Your task to perform on an android device: delete browsing data in the chrome app Image 0: 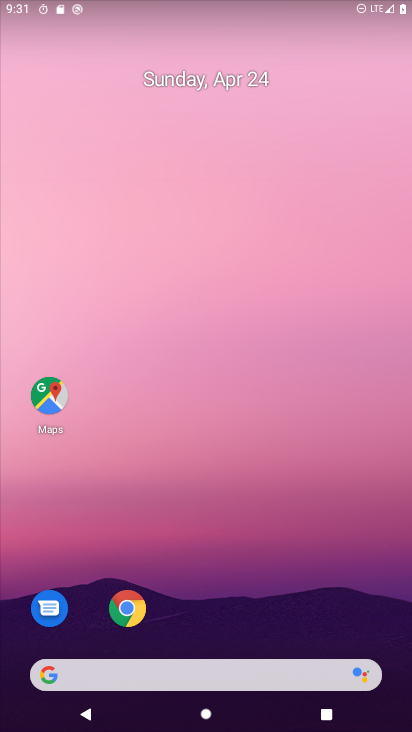
Step 0: click (134, 607)
Your task to perform on an android device: delete browsing data in the chrome app Image 1: 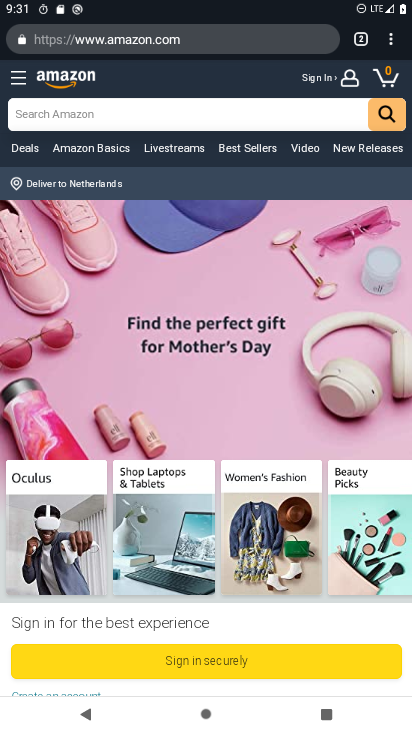
Step 1: click (390, 46)
Your task to perform on an android device: delete browsing data in the chrome app Image 2: 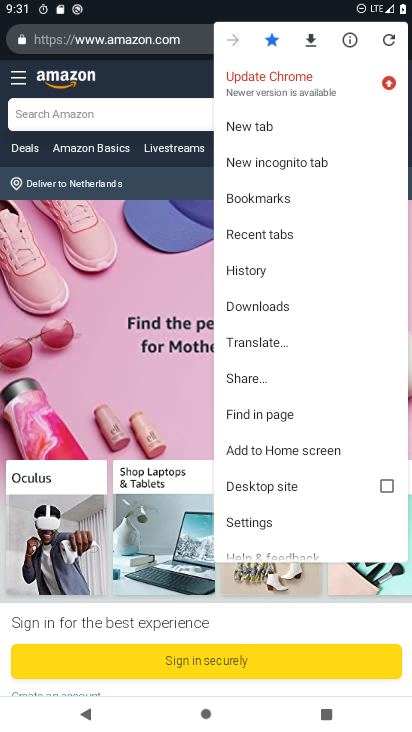
Step 2: click (277, 268)
Your task to perform on an android device: delete browsing data in the chrome app Image 3: 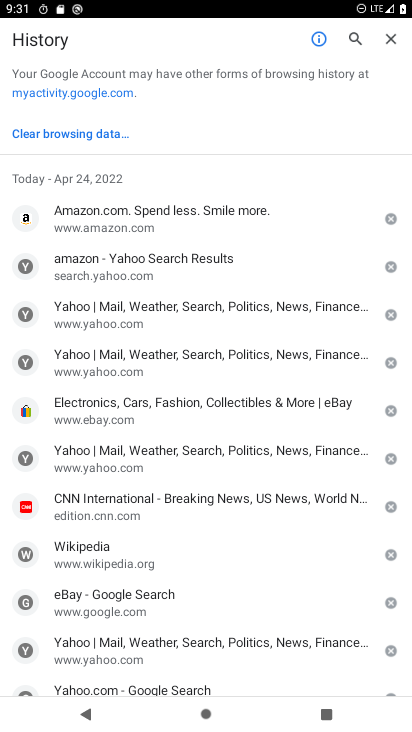
Step 3: click (106, 124)
Your task to perform on an android device: delete browsing data in the chrome app Image 4: 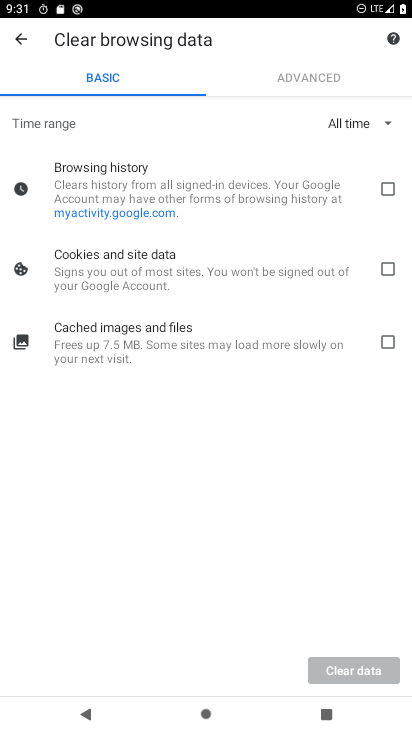
Step 4: click (388, 188)
Your task to perform on an android device: delete browsing data in the chrome app Image 5: 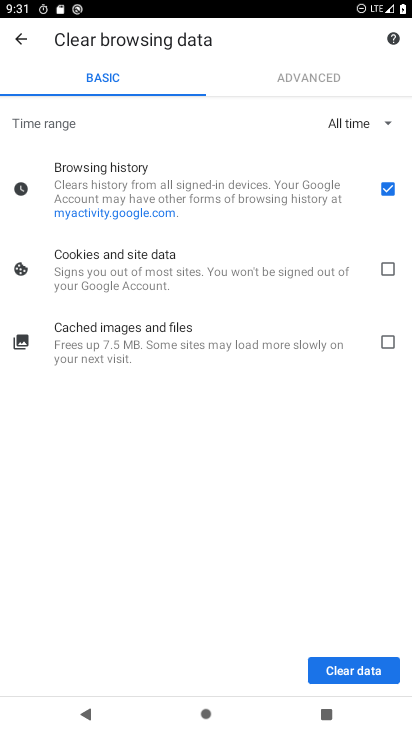
Step 5: click (381, 263)
Your task to perform on an android device: delete browsing data in the chrome app Image 6: 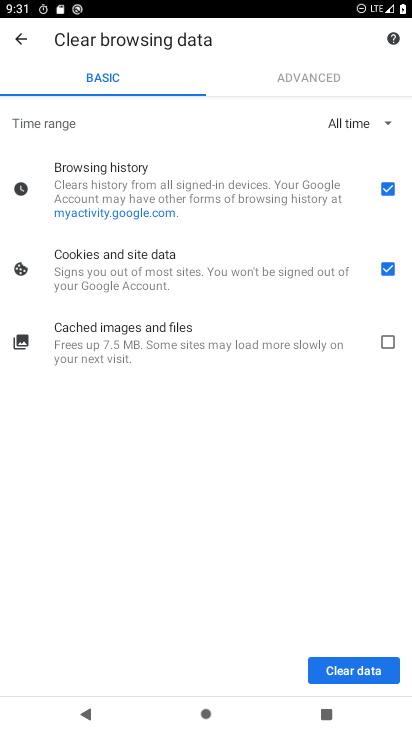
Step 6: click (383, 345)
Your task to perform on an android device: delete browsing data in the chrome app Image 7: 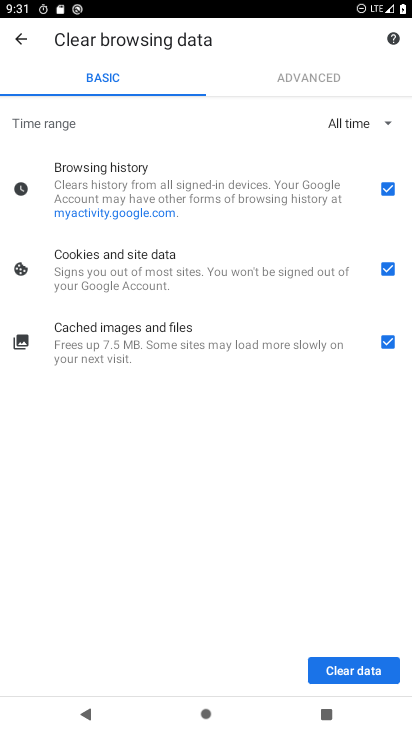
Step 7: click (376, 673)
Your task to perform on an android device: delete browsing data in the chrome app Image 8: 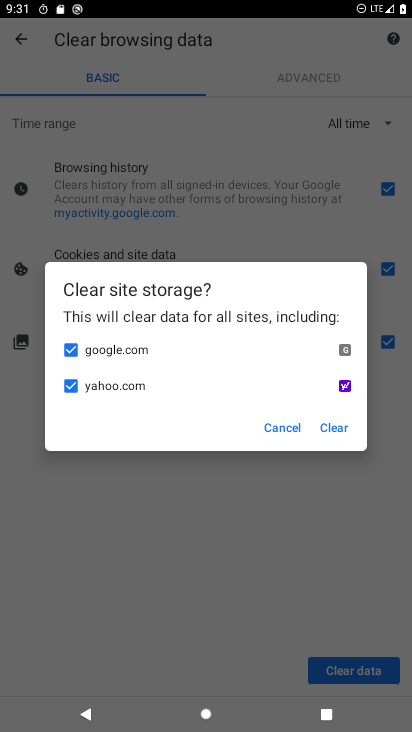
Step 8: click (343, 421)
Your task to perform on an android device: delete browsing data in the chrome app Image 9: 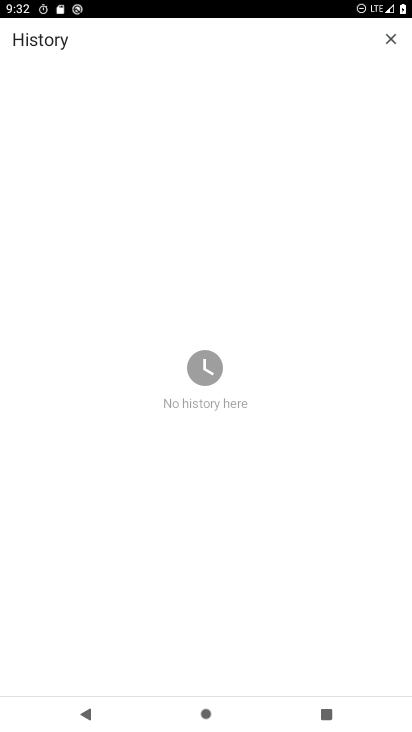
Step 9: task complete